Your task to perform on an android device: What's on my calendar tomorrow? Image 0: 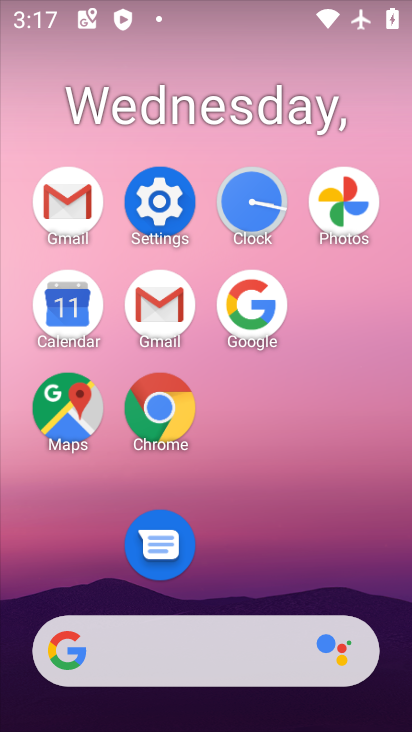
Step 0: click (74, 302)
Your task to perform on an android device: What's on my calendar tomorrow? Image 1: 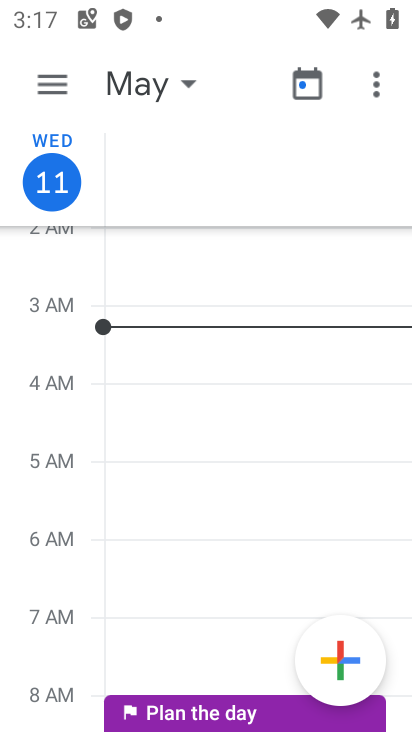
Step 1: task complete